Your task to perform on an android device: Open settings Image 0: 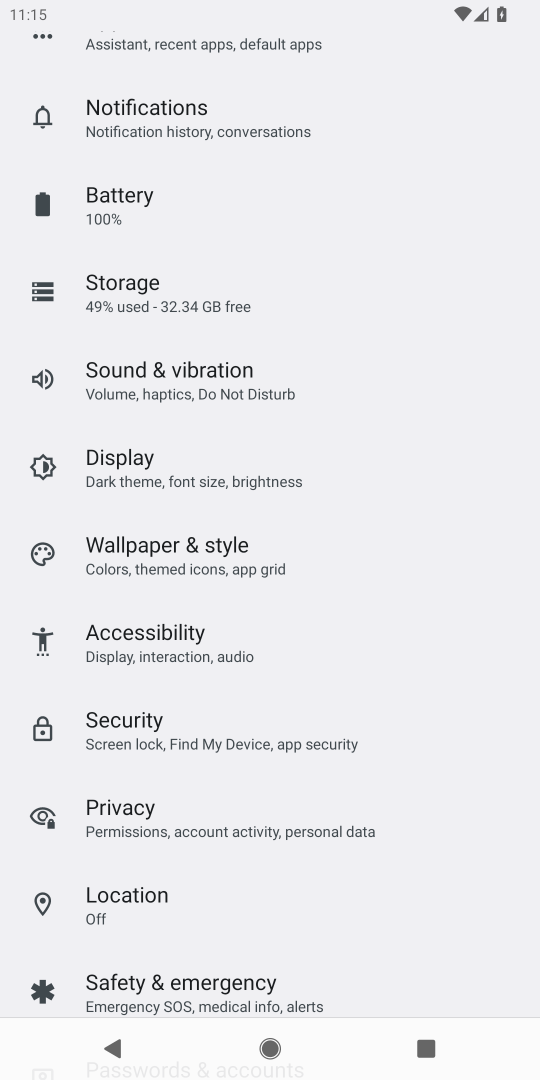
Step 0: task complete